Your task to perform on an android device: Open Google Chrome and click the shortcut for Amazon.com Image 0: 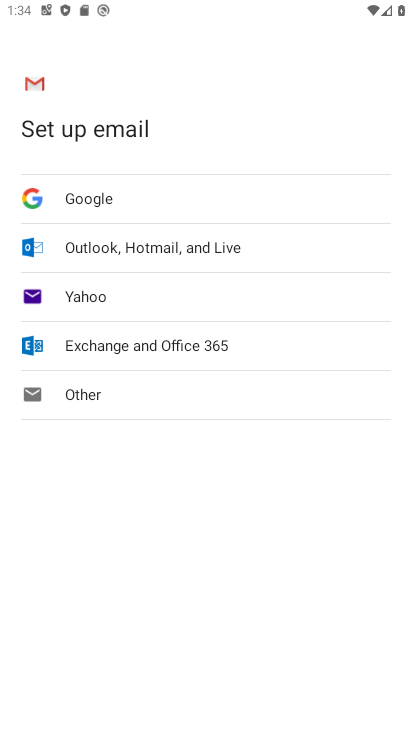
Step 0: press back button
Your task to perform on an android device: Open Google Chrome and click the shortcut for Amazon.com Image 1: 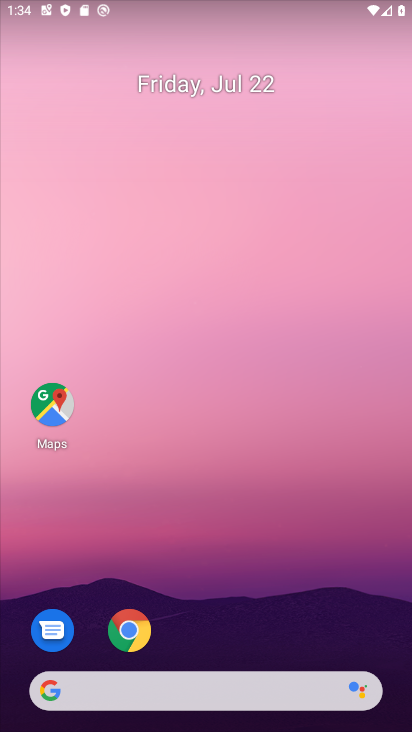
Step 1: click (137, 628)
Your task to perform on an android device: Open Google Chrome and click the shortcut for Amazon.com Image 2: 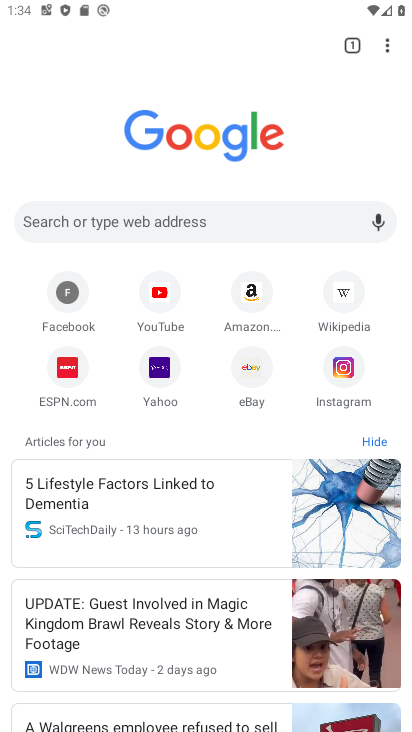
Step 2: click (108, 221)
Your task to perform on an android device: Open Google Chrome and click the shortcut for Amazon.com Image 3: 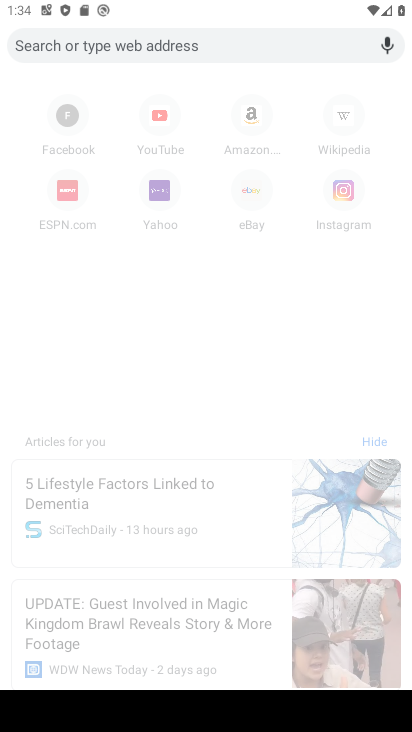
Step 3: click (253, 127)
Your task to perform on an android device: Open Google Chrome and click the shortcut for Amazon.com Image 4: 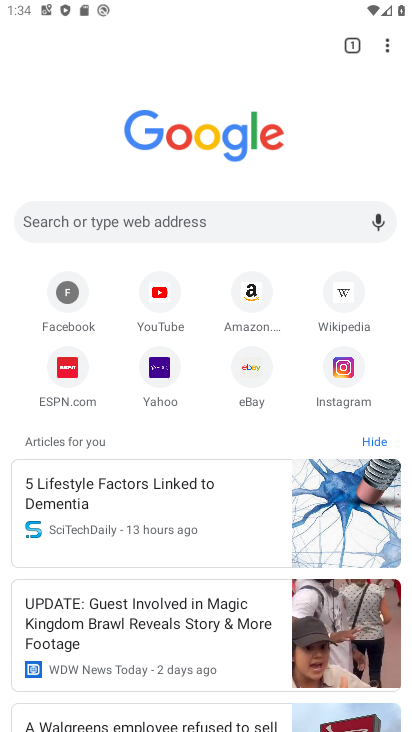
Step 4: click (255, 284)
Your task to perform on an android device: Open Google Chrome and click the shortcut for Amazon.com Image 5: 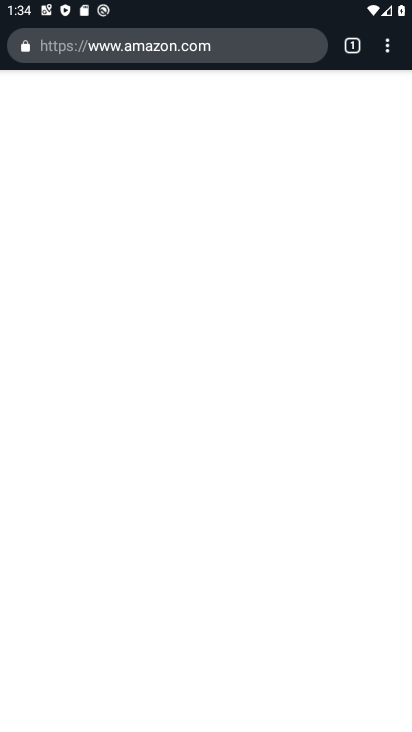
Step 5: task complete